Your task to perform on an android device: toggle data saver in the chrome app Image 0: 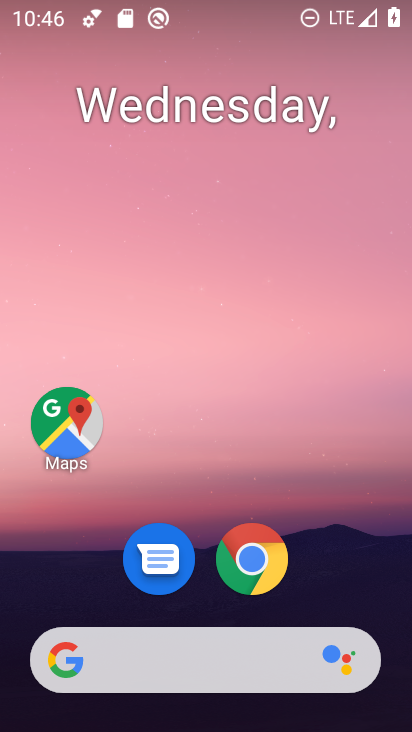
Step 0: drag from (344, 556) to (338, 155)
Your task to perform on an android device: toggle data saver in the chrome app Image 1: 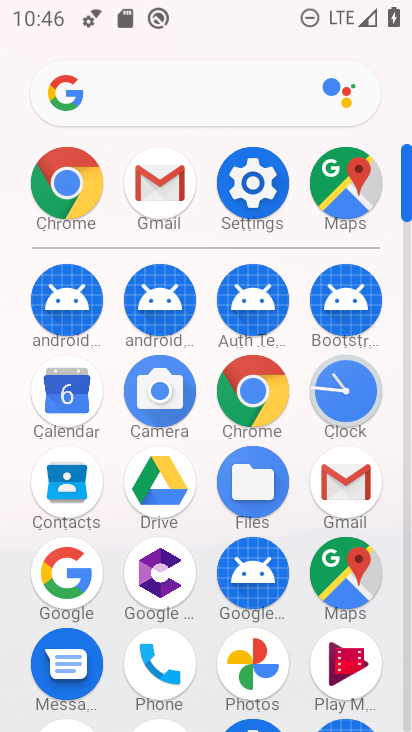
Step 1: click (276, 395)
Your task to perform on an android device: toggle data saver in the chrome app Image 2: 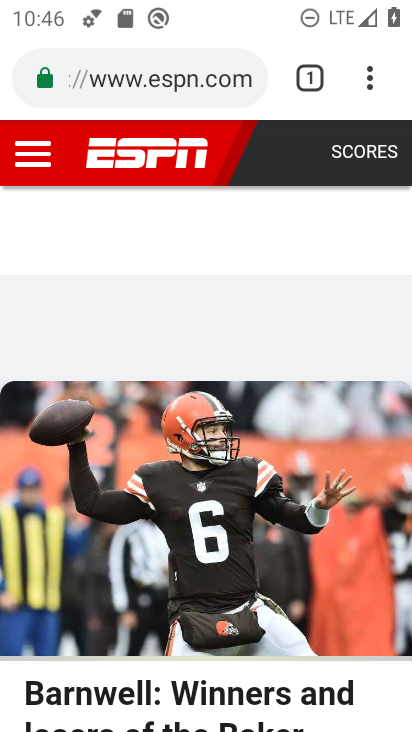
Step 2: click (370, 71)
Your task to perform on an android device: toggle data saver in the chrome app Image 3: 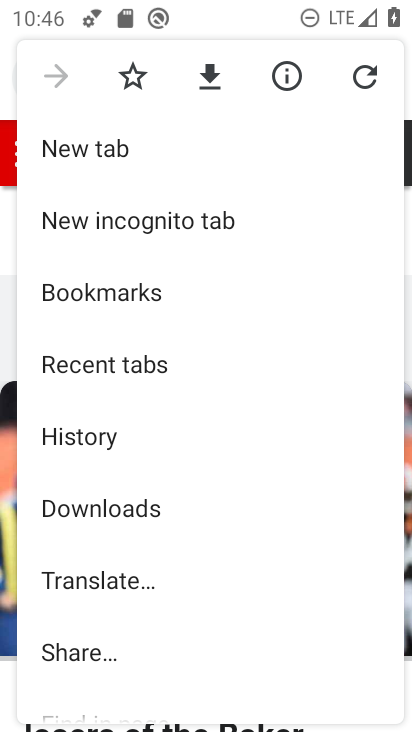
Step 3: drag from (289, 436) to (300, 338)
Your task to perform on an android device: toggle data saver in the chrome app Image 4: 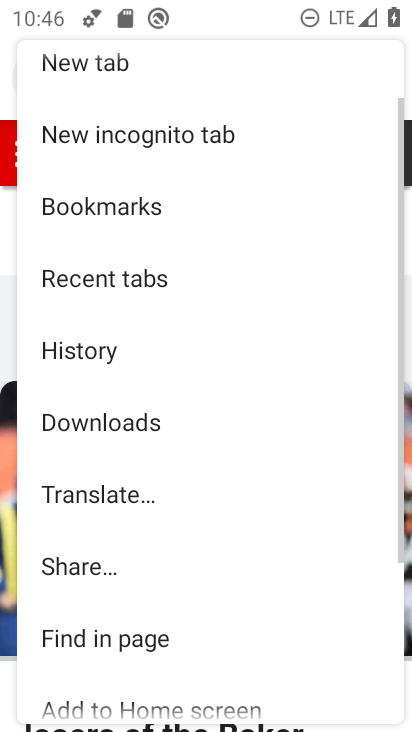
Step 4: drag from (291, 455) to (290, 345)
Your task to perform on an android device: toggle data saver in the chrome app Image 5: 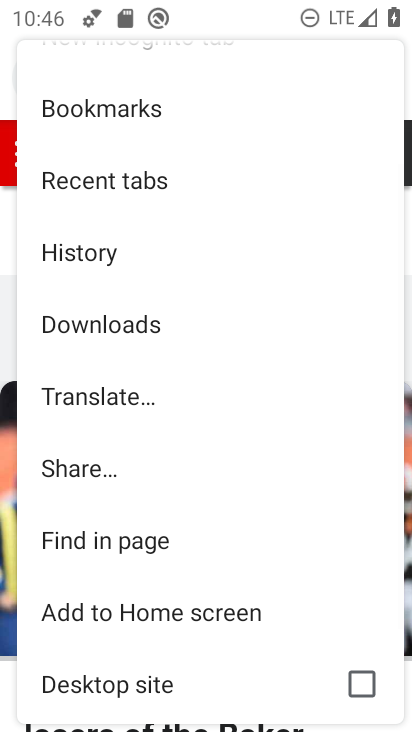
Step 5: drag from (303, 458) to (303, 379)
Your task to perform on an android device: toggle data saver in the chrome app Image 6: 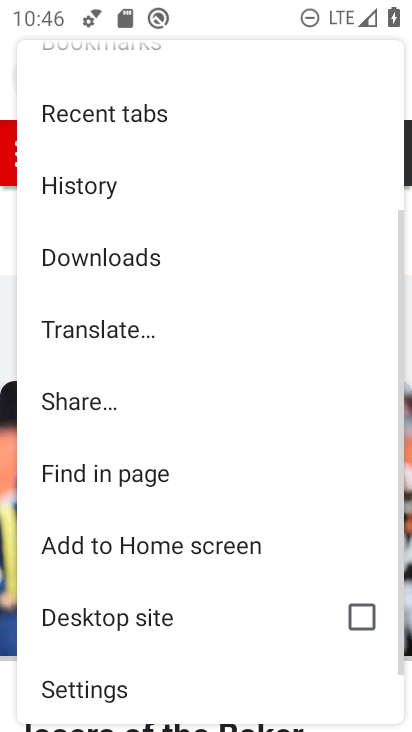
Step 6: drag from (297, 470) to (296, 385)
Your task to perform on an android device: toggle data saver in the chrome app Image 7: 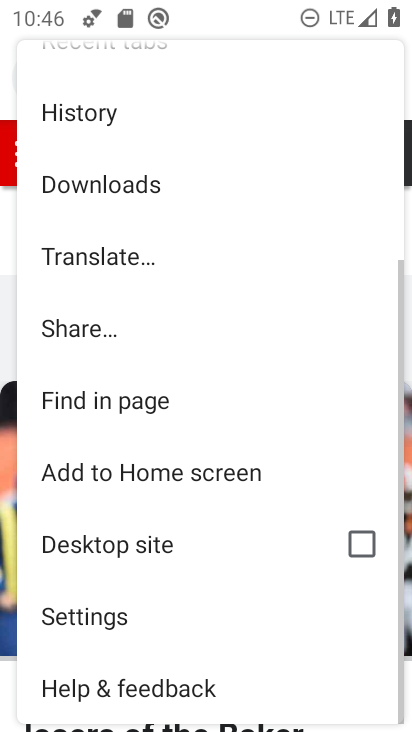
Step 7: drag from (299, 481) to (299, 406)
Your task to perform on an android device: toggle data saver in the chrome app Image 8: 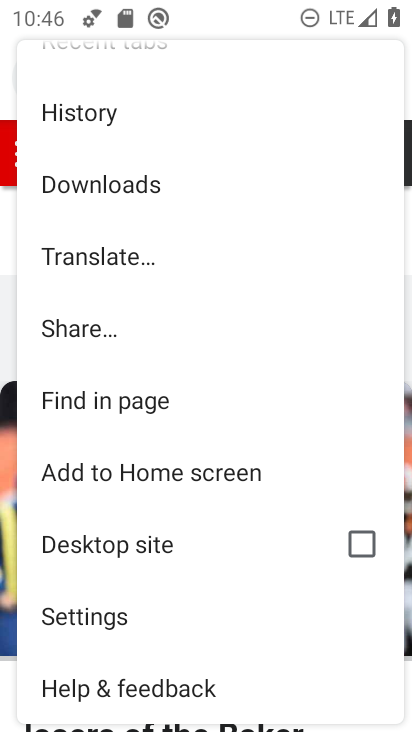
Step 8: click (213, 627)
Your task to perform on an android device: toggle data saver in the chrome app Image 9: 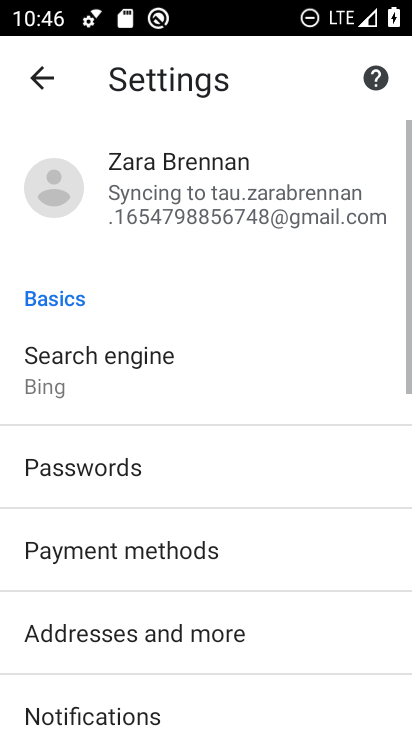
Step 9: drag from (303, 574) to (297, 494)
Your task to perform on an android device: toggle data saver in the chrome app Image 10: 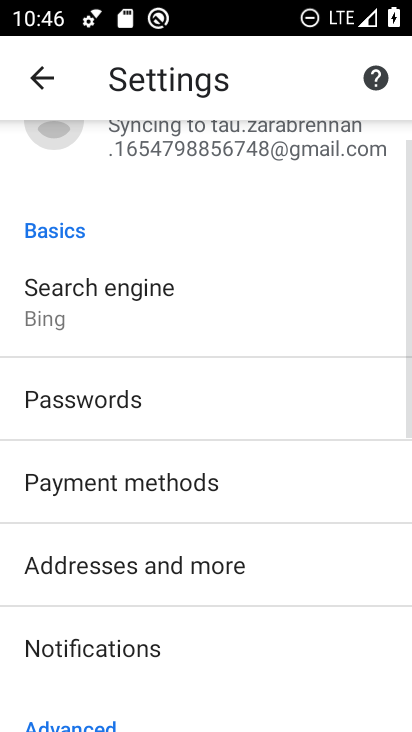
Step 10: drag from (310, 564) to (327, 356)
Your task to perform on an android device: toggle data saver in the chrome app Image 11: 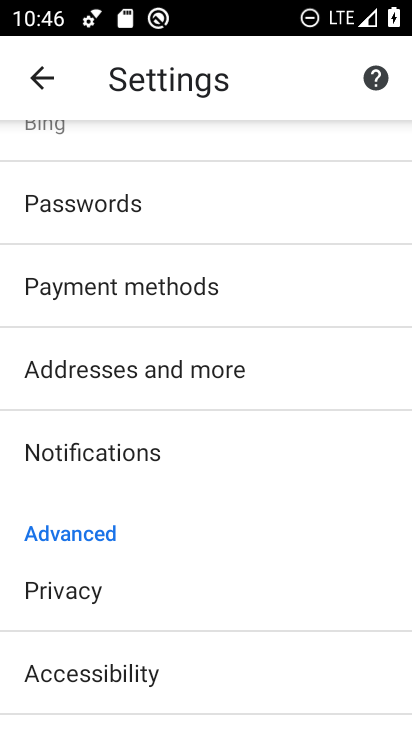
Step 11: drag from (336, 535) to (332, 402)
Your task to perform on an android device: toggle data saver in the chrome app Image 12: 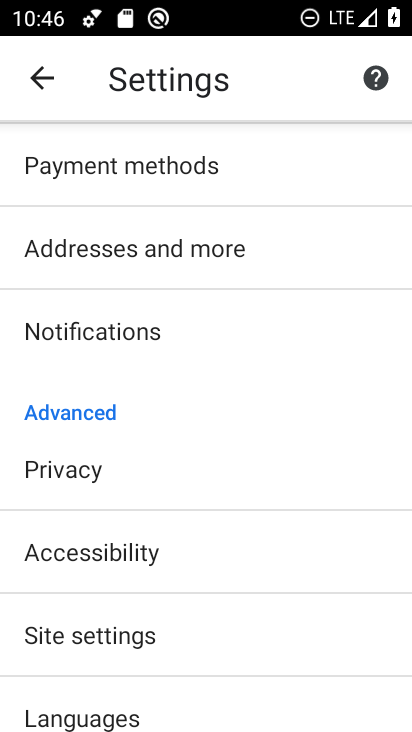
Step 12: drag from (334, 523) to (339, 427)
Your task to perform on an android device: toggle data saver in the chrome app Image 13: 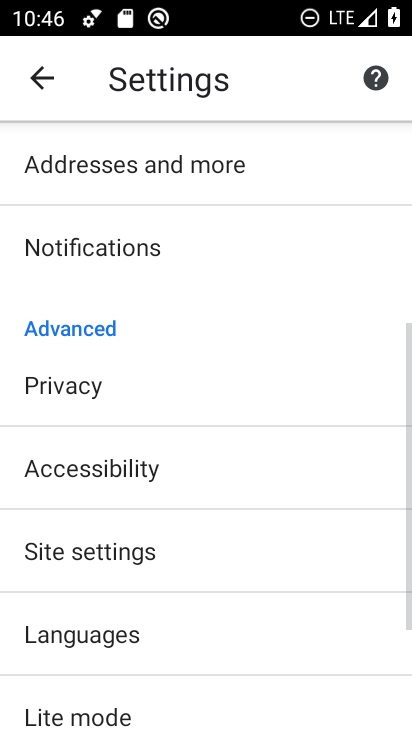
Step 13: drag from (333, 568) to (331, 437)
Your task to perform on an android device: toggle data saver in the chrome app Image 14: 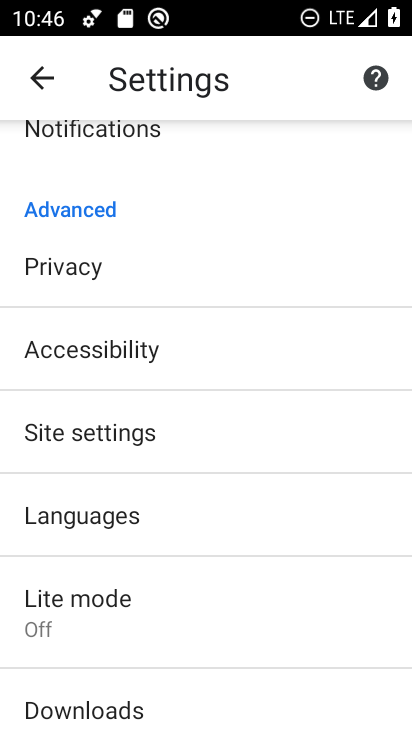
Step 14: drag from (317, 574) to (319, 446)
Your task to perform on an android device: toggle data saver in the chrome app Image 15: 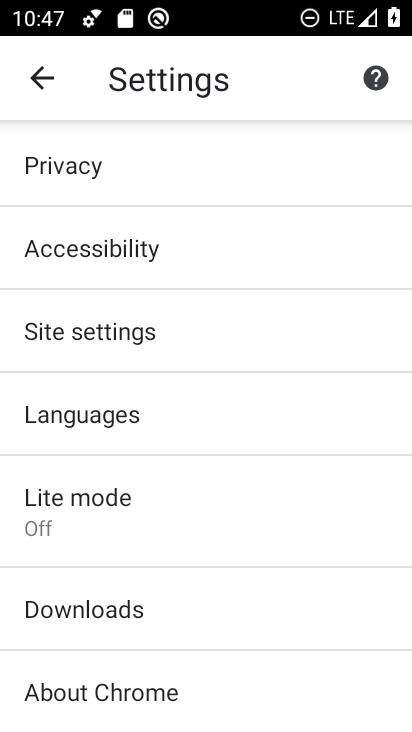
Step 15: click (296, 523)
Your task to perform on an android device: toggle data saver in the chrome app Image 16: 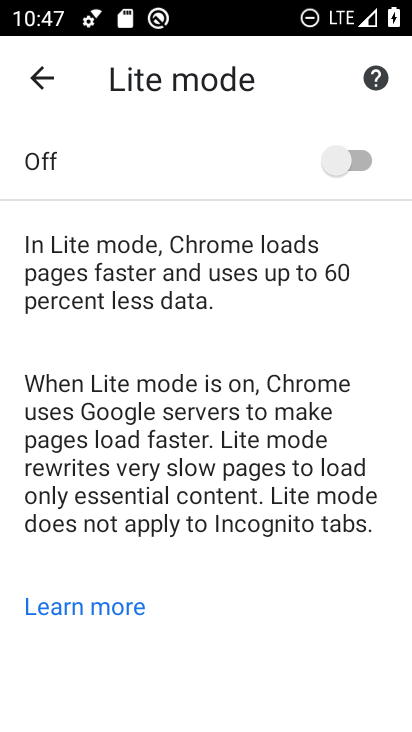
Step 16: click (356, 161)
Your task to perform on an android device: toggle data saver in the chrome app Image 17: 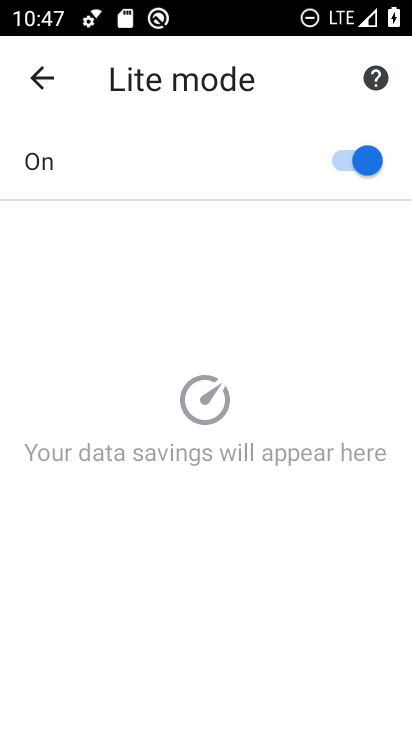
Step 17: task complete